Your task to perform on an android device: turn off notifications in google photos Image 0: 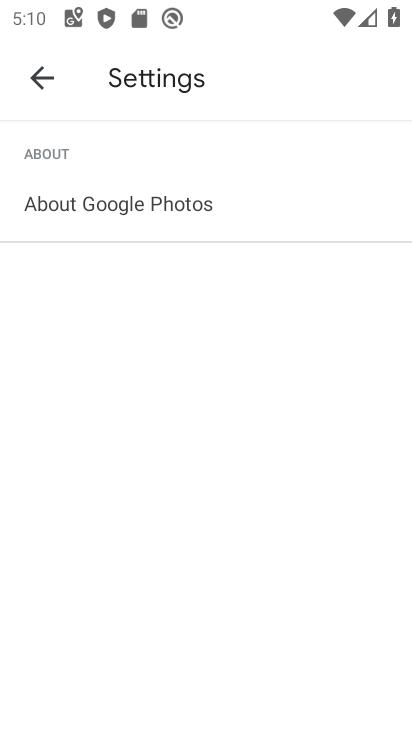
Step 0: press home button
Your task to perform on an android device: turn off notifications in google photos Image 1: 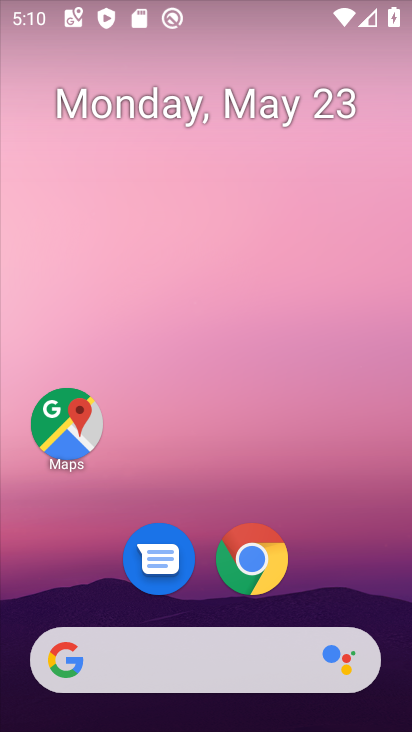
Step 1: drag from (264, 618) to (175, 10)
Your task to perform on an android device: turn off notifications in google photos Image 2: 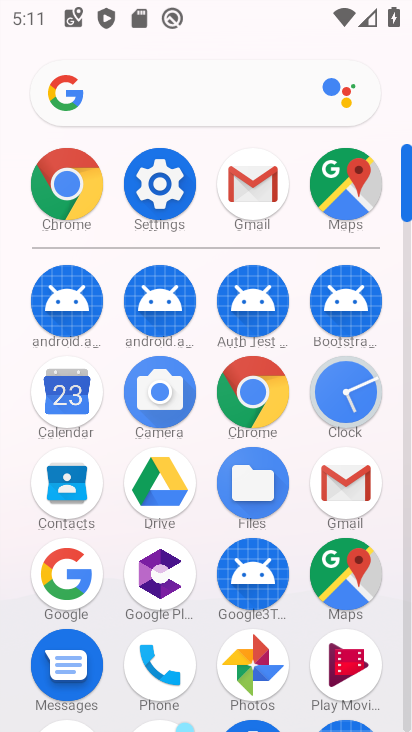
Step 2: click (271, 664)
Your task to perform on an android device: turn off notifications in google photos Image 3: 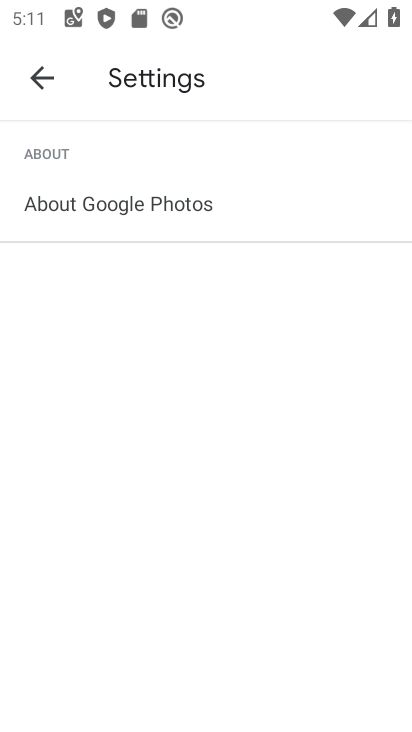
Step 3: press back button
Your task to perform on an android device: turn off notifications in google photos Image 4: 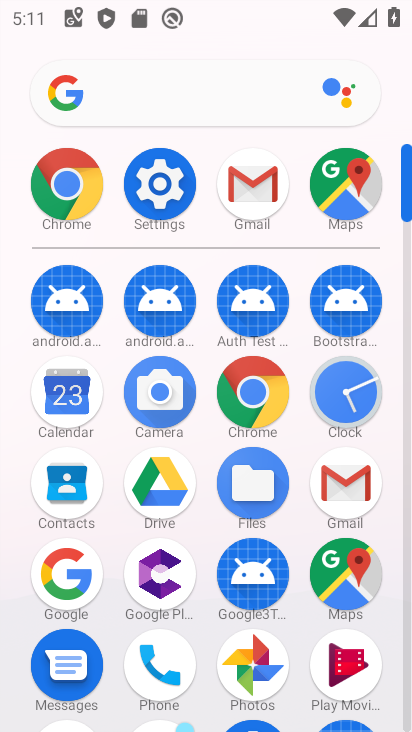
Step 4: click (268, 674)
Your task to perform on an android device: turn off notifications in google photos Image 5: 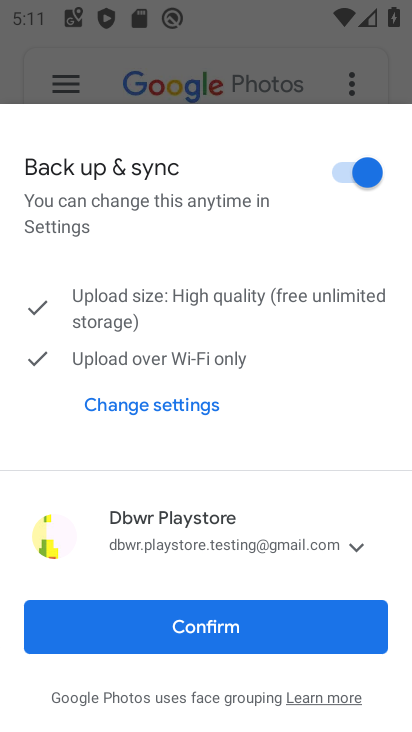
Step 5: press home button
Your task to perform on an android device: turn off notifications in google photos Image 6: 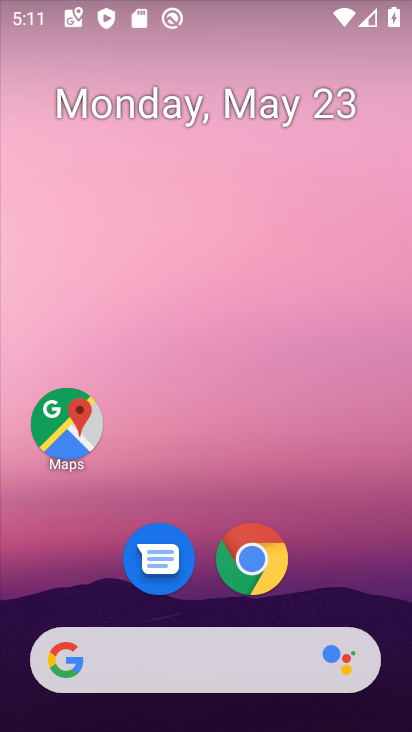
Step 6: drag from (303, 636) to (261, 8)
Your task to perform on an android device: turn off notifications in google photos Image 7: 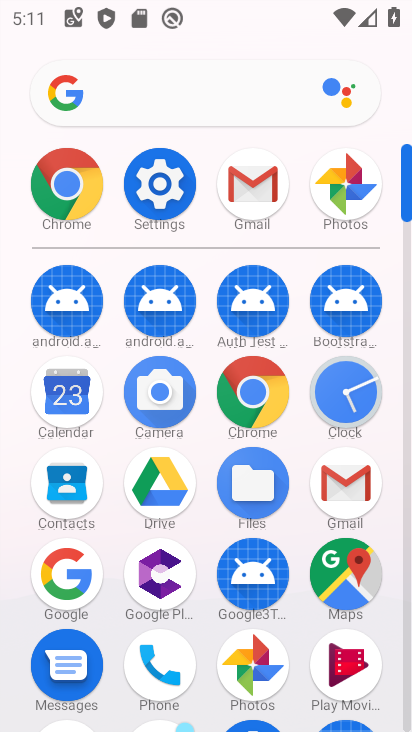
Step 7: click (275, 672)
Your task to perform on an android device: turn off notifications in google photos Image 8: 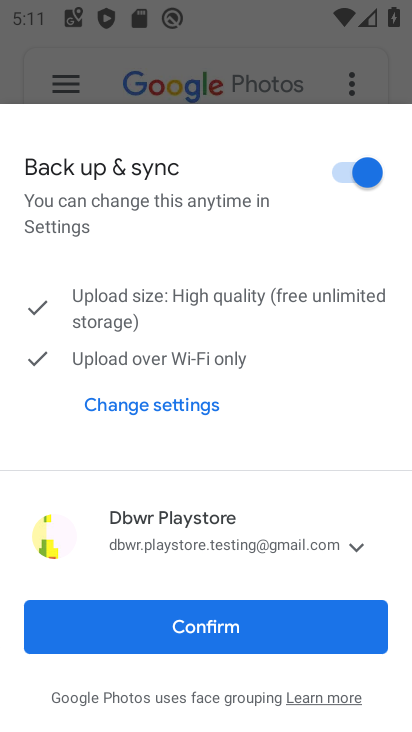
Step 8: click (254, 642)
Your task to perform on an android device: turn off notifications in google photos Image 9: 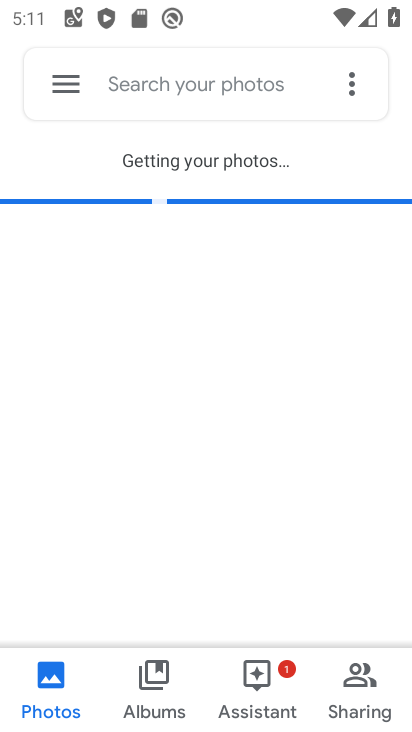
Step 9: click (63, 83)
Your task to perform on an android device: turn off notifications in google photos Image 10: 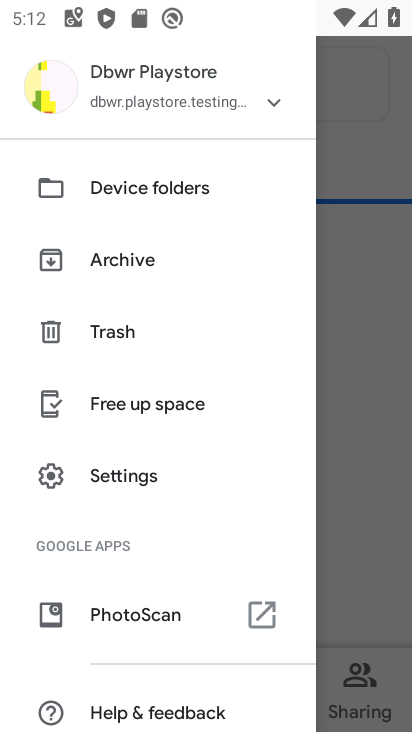
Step 10: click (153, 480)
Your task to perform on an android device: turn off notifications in google photos Image 11: 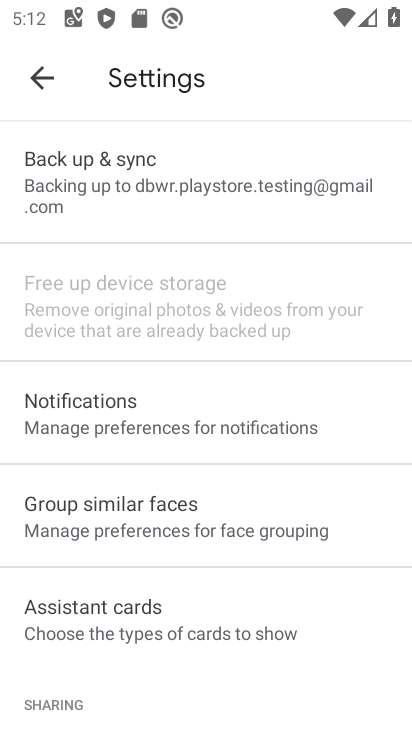
Step 11: click (221, 441)
Your task to perform on an android device: turn off notifications in google photos Image 12: 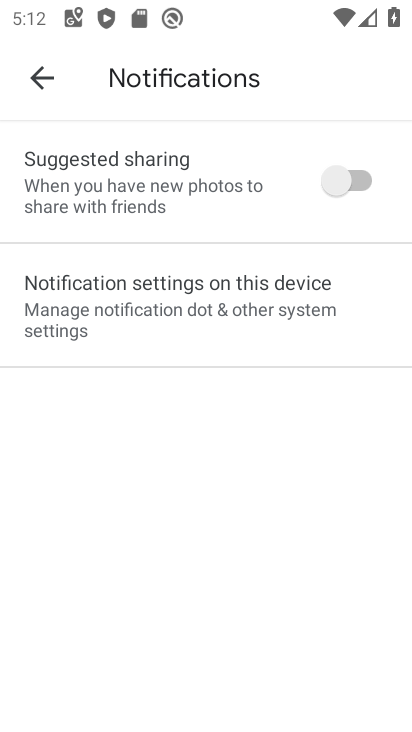
Step 12: click (264, 283)
Your task to perform on an android device: turn off notifications in google photos Image 13: 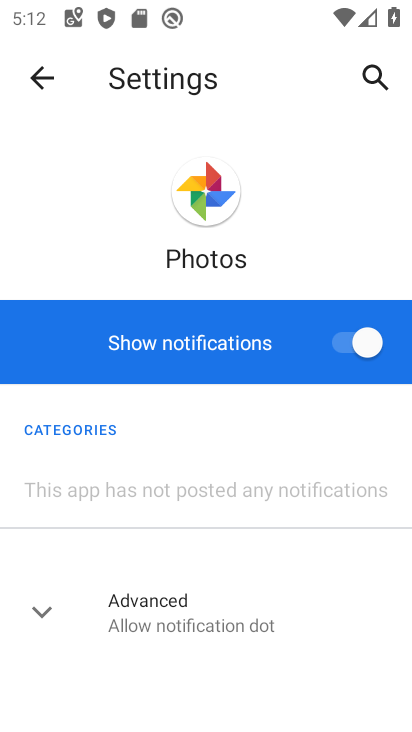
Step 13: click (344, 340)
Your task to perform on an android device: turn off notifications in google photos Image 14: 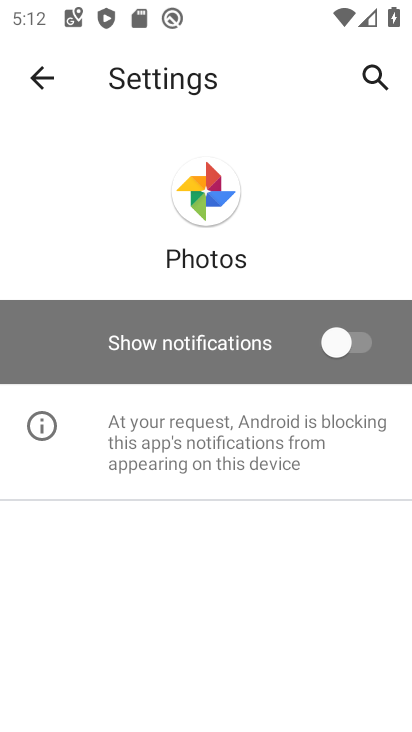
Step 14: task complete